Your task to perform on an android device: Open Yahoo.com Image 0: 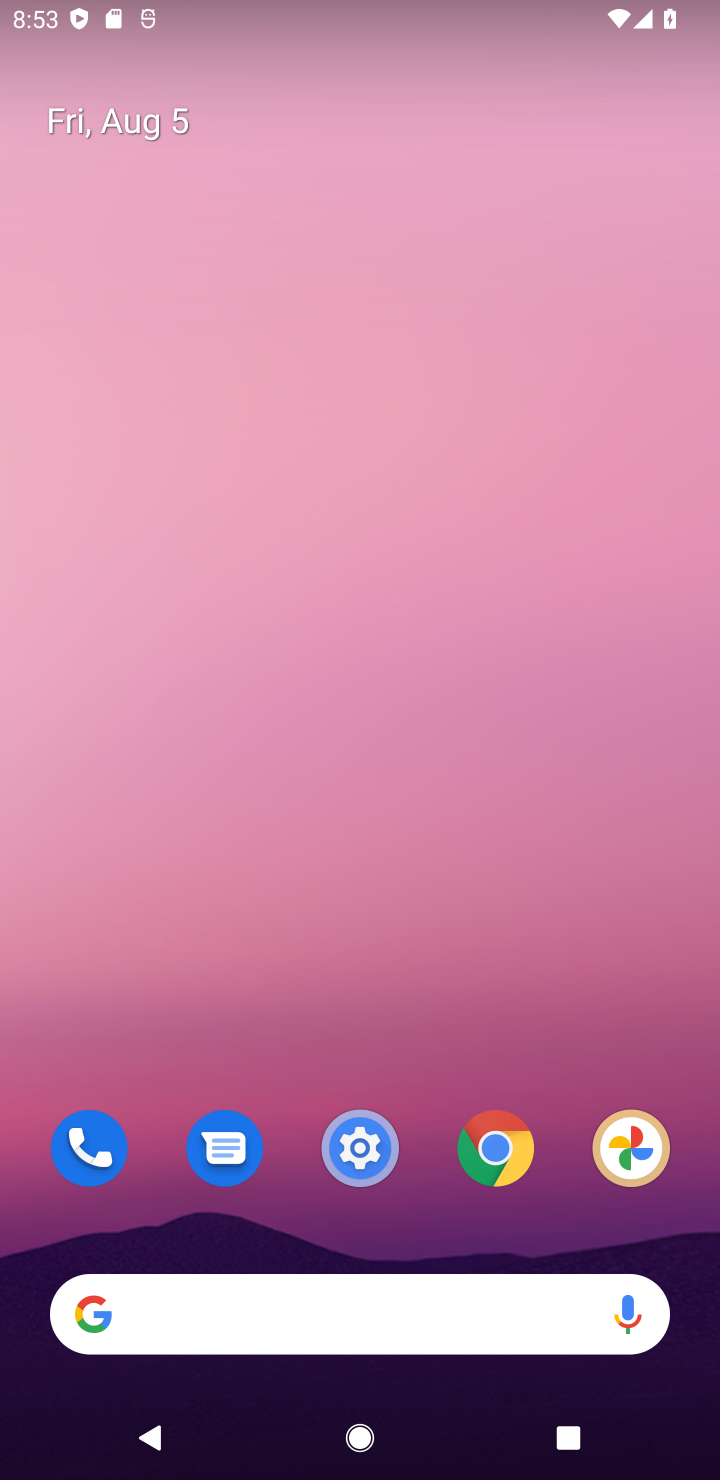
Step 0: click (495, 1160)
Your task to perform on an android device: Open Yahoo.com Image 1: 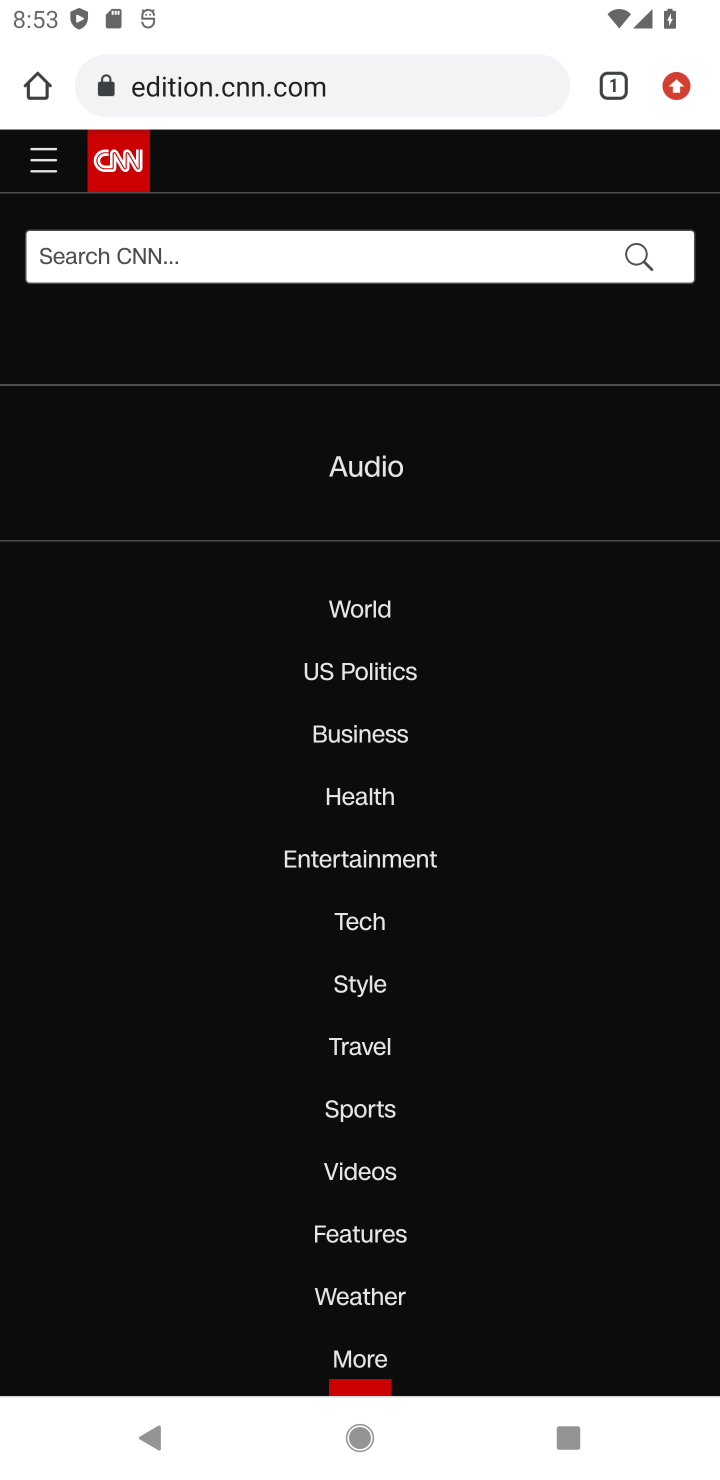
Step 1: click (412, 107)
Your task to perform on an android device: Open Yahoo.com Image 2: 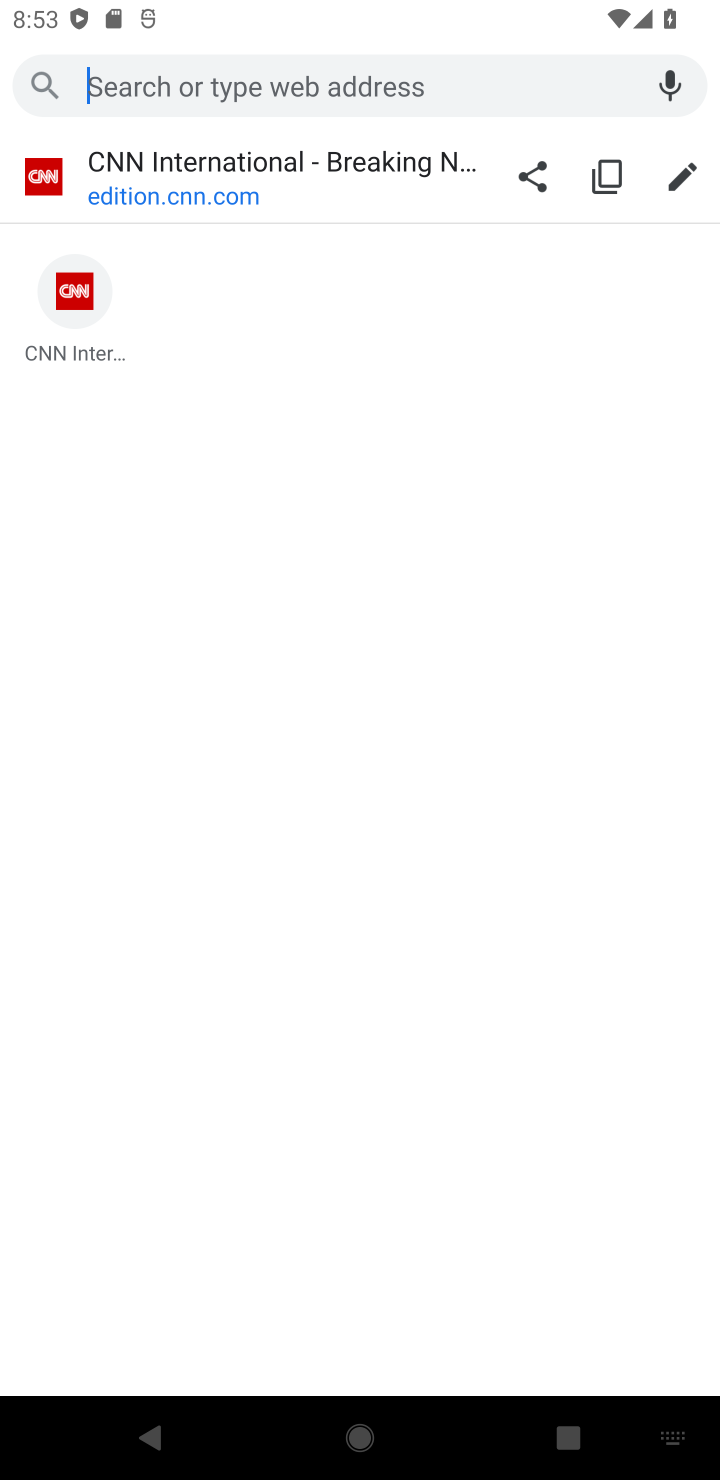
Step 2: type "yahoo.com"
Your task to perform on an android device: Open Yahoo.com Image 3: 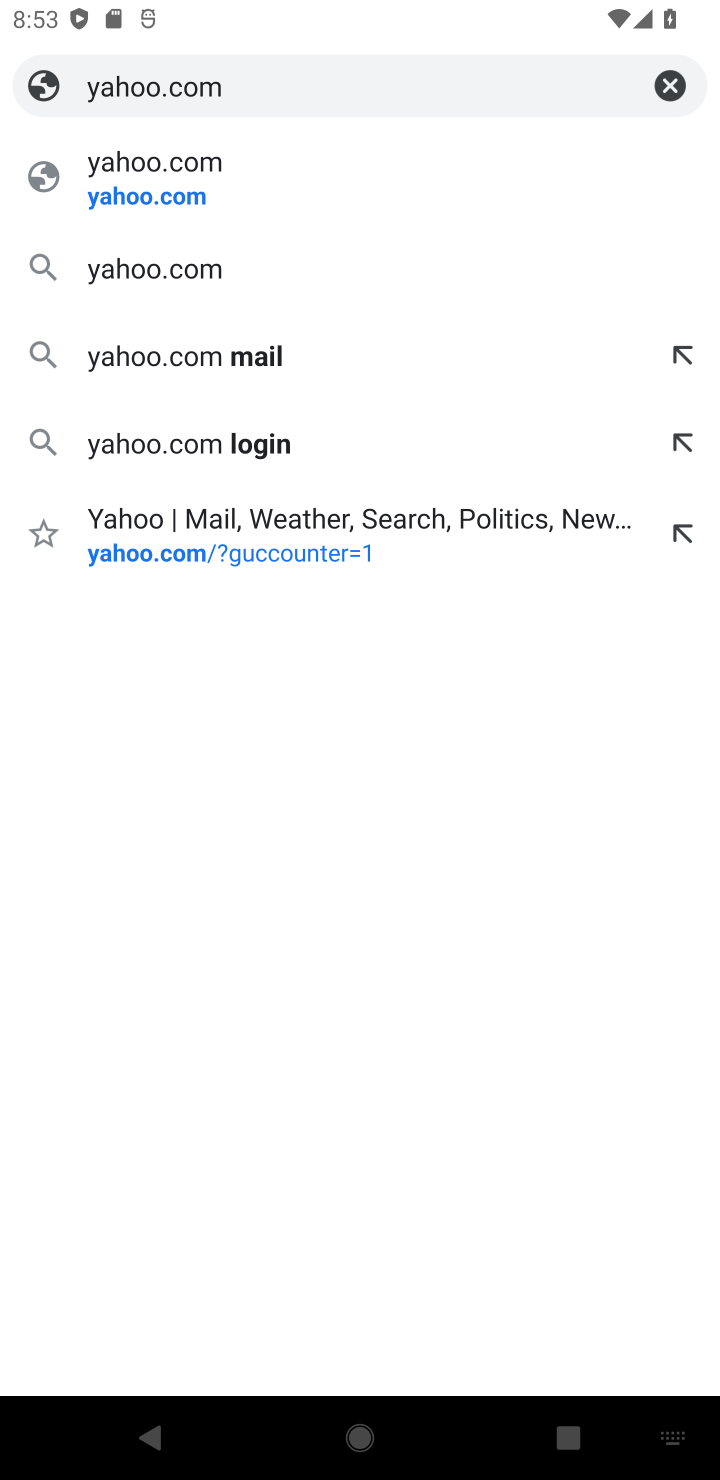
Step 3: click (293, 212)
Your task to perform on an android device: Open Yahoo.com Image 4: 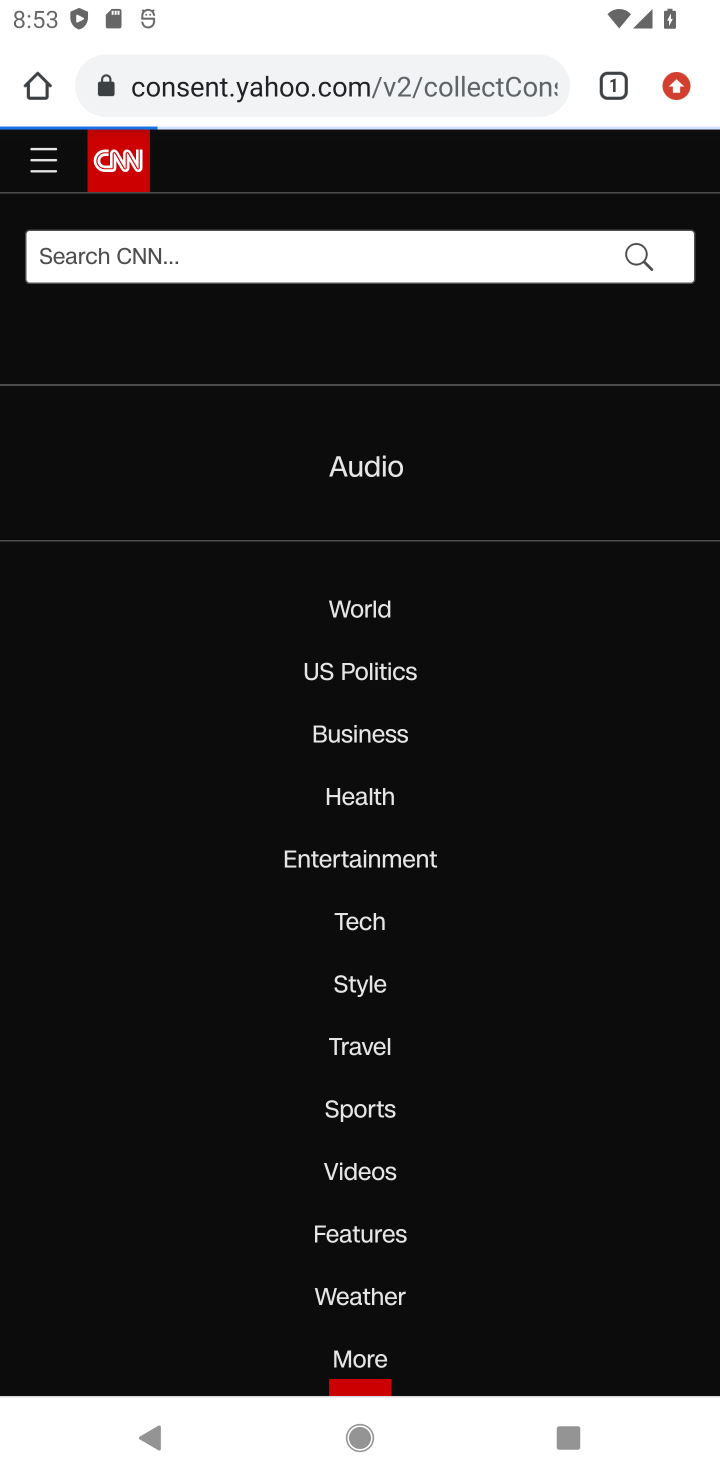
Step 4: task complete